Your task to perform on an android device: Open Google Image 0: 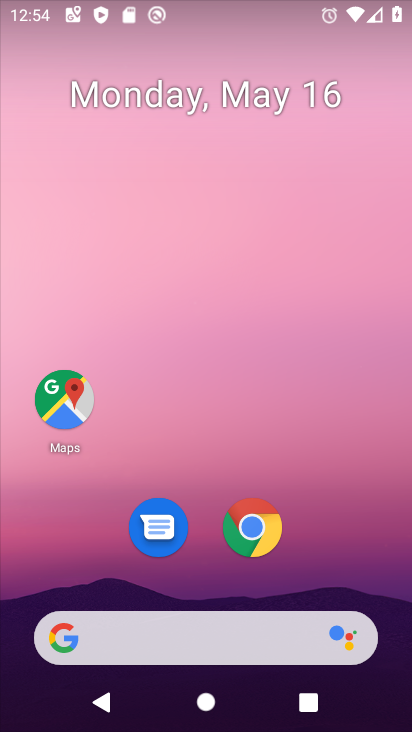
Step 0: click (276, 515)
Your task to perform on an android device: Open Google Image 1: 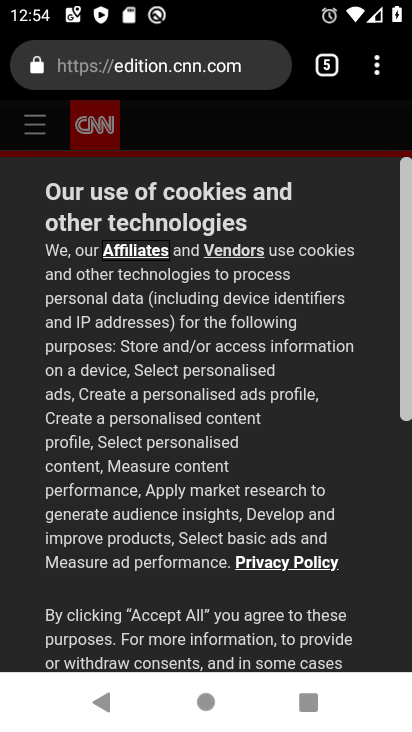
Step 1: click (222, 47)
Your task to perform on an android device: Open Google Image 2: 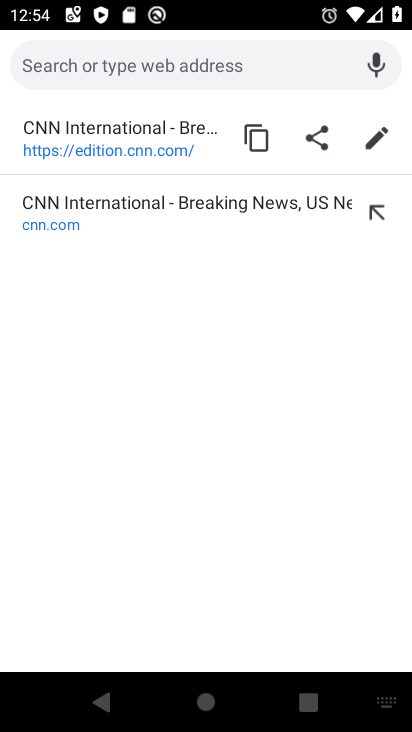
Step 2: type "google.com"
Your task to perform on an android device: Open Google Image 3: 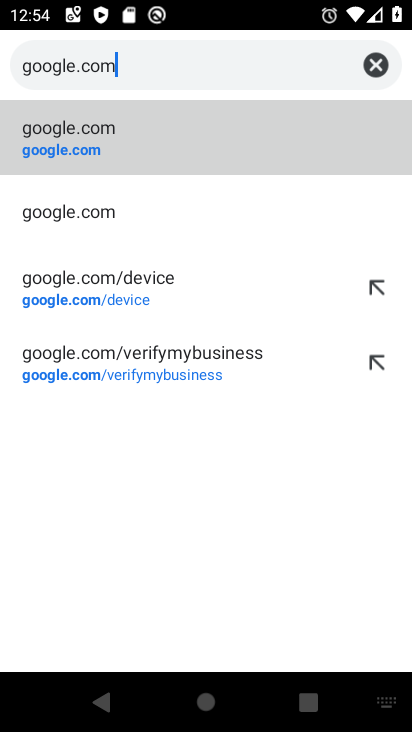
Step 3: click (85, 156)
Your task to perform on an android device: Open Google Image 4: 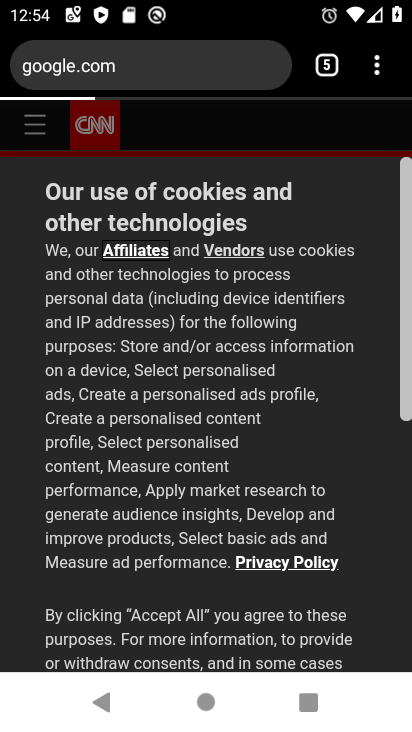
Step 4: task complete